Your task to perform on an android device: all mails in gmail Image 0: 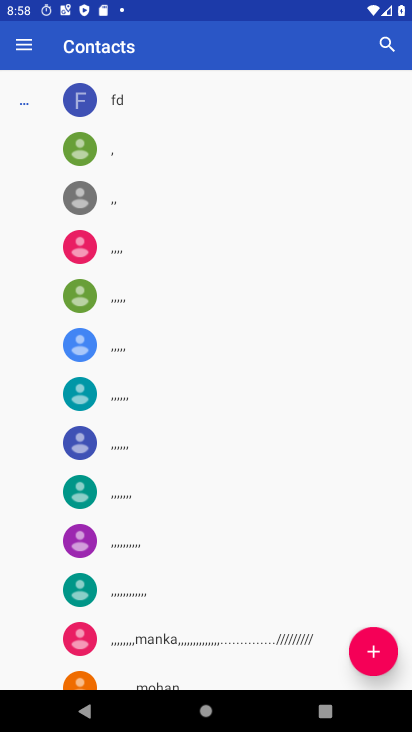
Step 0: press home button
Your task to perform on an android device: all mails in gmail Image 1: 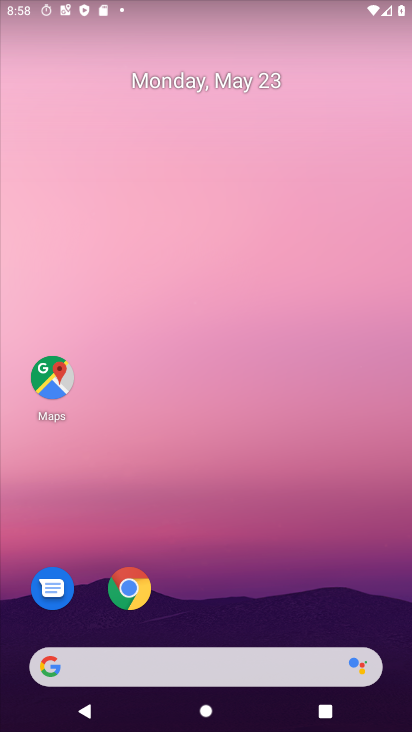
Step 1: drag from (393, 582) to (377, 259)
Your task to perform on an android device: all mails in gmail Image 2: 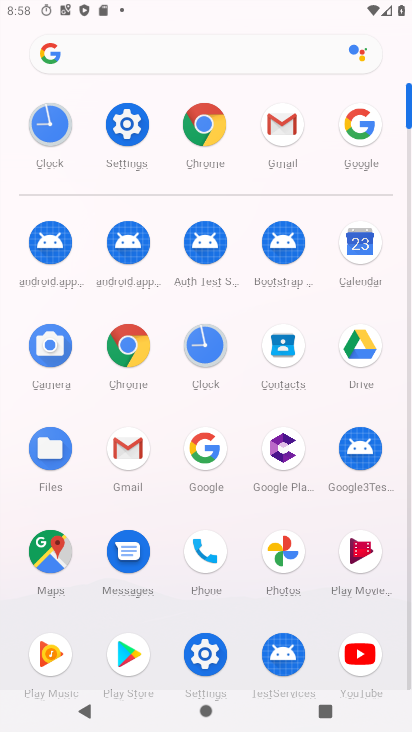
Step 2: click (121, 451)
Your task to perform on an android device: all mails in gmail Image 3: 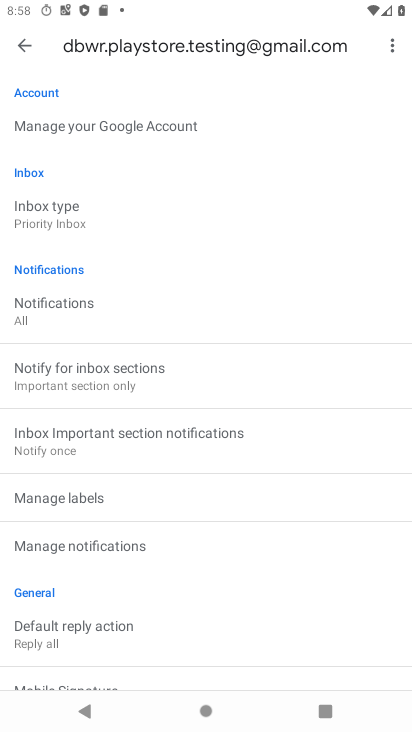
Step 3: drag from (234, 629) to (243, 311)
Your task to perform on an android device: all mails in gmail Image 4: 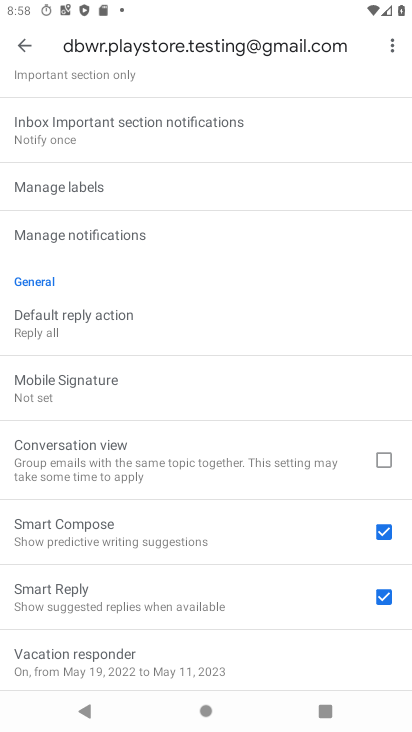
Step 4: drag from (267, 202) to (266, 509)
Your task to perform on an android device: all mails in gmail Image 5: 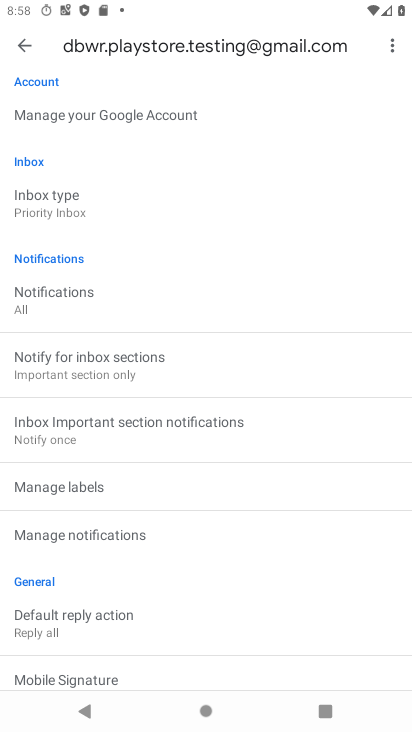
Step 5: press home button
Your task to perform on an android device: all mails in gmail Image 6: 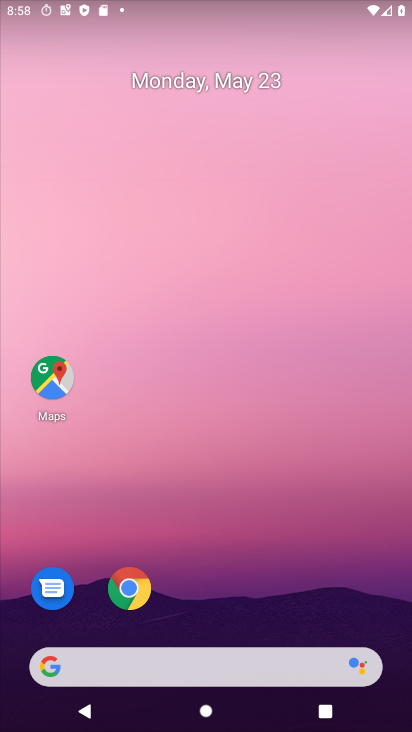
Step 6: drag from (400, 690) to (329, 246)
Your task to perform on an android device: all mails in gmail Image 7: 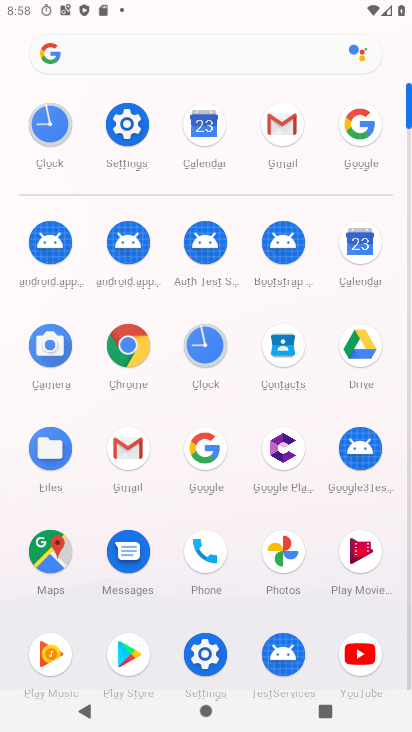
Step 7: click (282, 114)
Your task to perform on an android device: all mails in gmail Image 8: 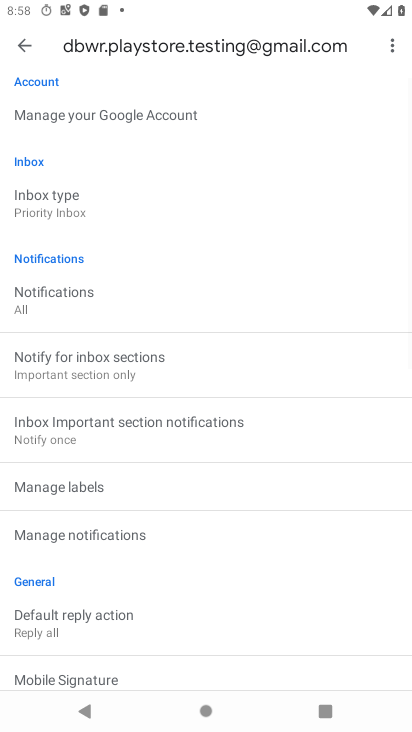
Step 8: click (19, 47)
Your task to perform on an android device: all mails in gmail Image 9: 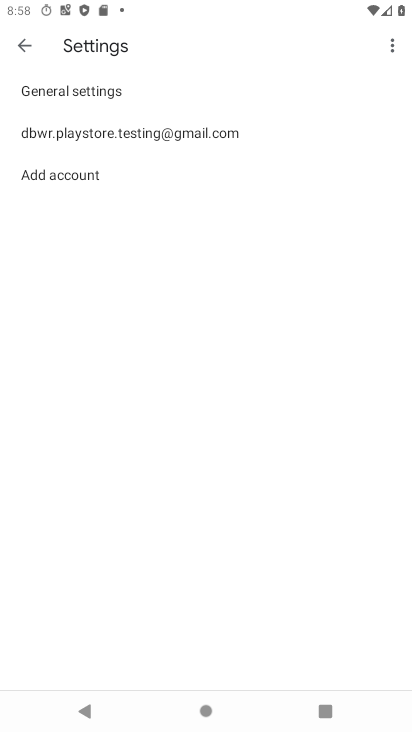
Step 9: click (18, 50)
Your task to perform on an android device: all mails in gmail Image 10: 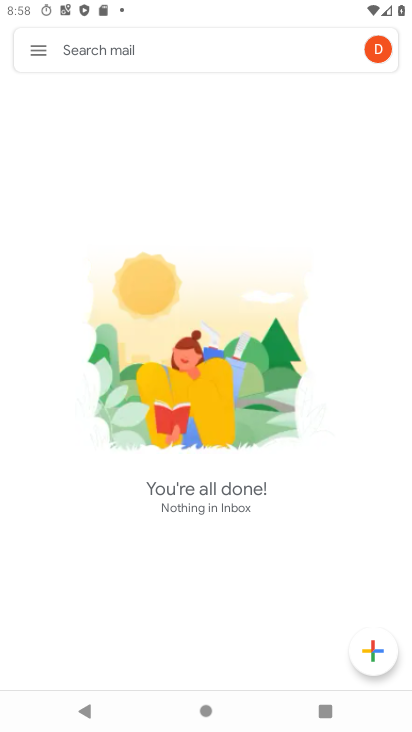
Step 10: click (31, 52)
Your task to perform on an android device: all mails in gmail Image 11: 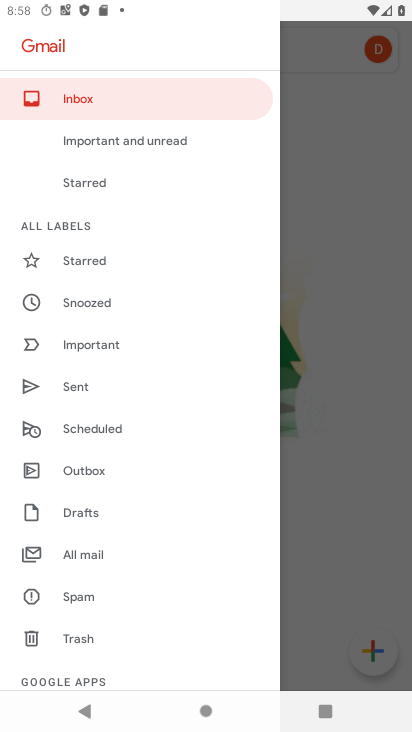
Step 11: click (73, 557)
Your task to perform on an android device: all mails in gmail Image 12: 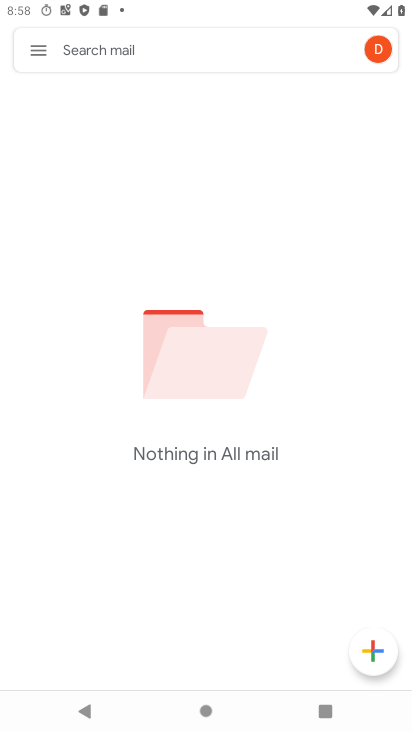
Step 12: task complete